Your task to perform on an android device: find photos in the google photos app Image 0: 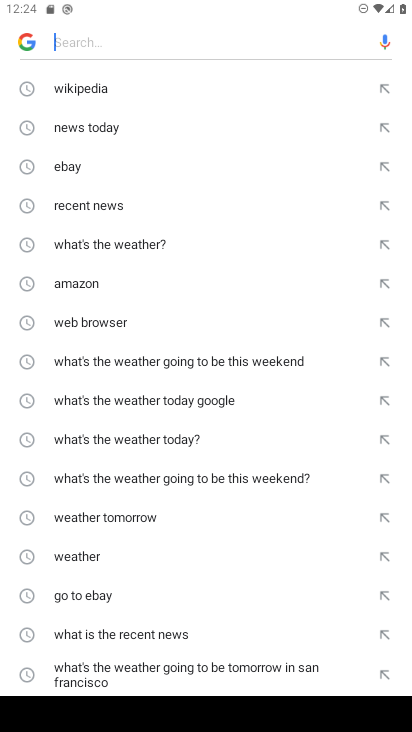
Step 0: press home button
Your task to perform on an android device: find photos in the google photos app Image 1: 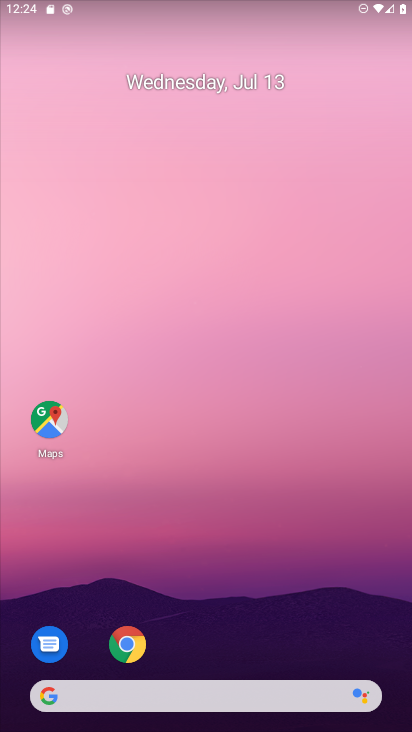
Step 1: drag from (222, 722) to (306, 119)
Your task to perform on an android device: find photos in the google photos app Image 2: 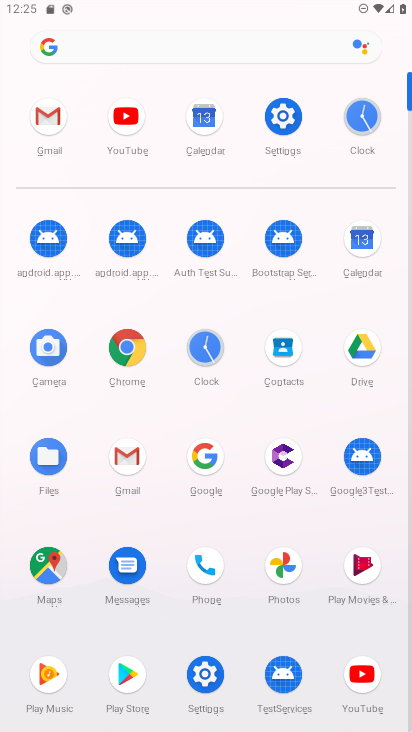
Step 2: click (290, 562)
Your task to perform on an android device: find photos in the google photos app Image 3: 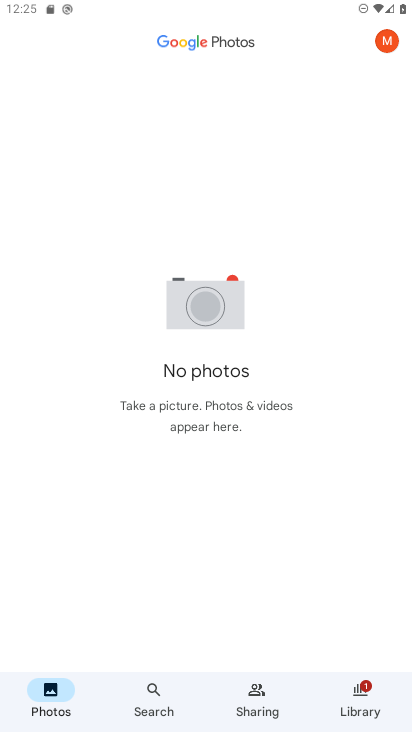
Step 3: click (158, 698)
Your task to perform on an android device: find photos in the google photos app Image 4: 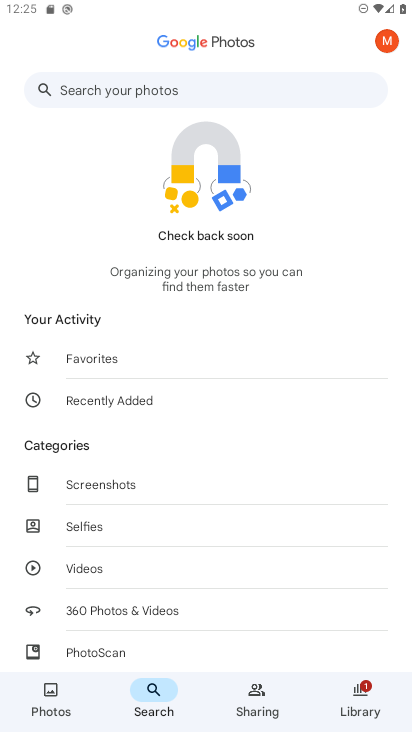
Step 4: task complete